Your task to perform on an android device: turn on translation in the chrome app Image 0: 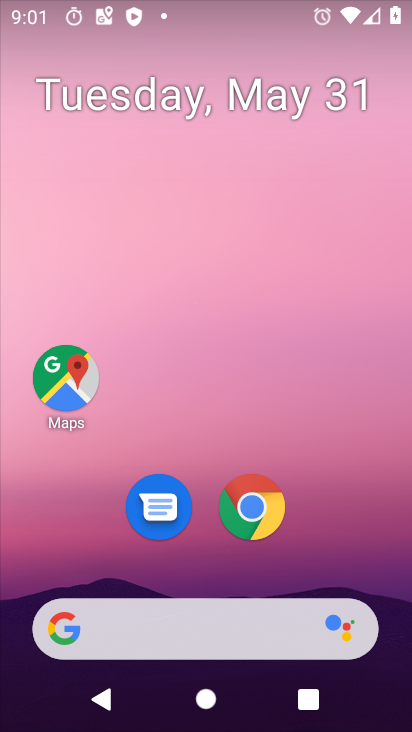
Step 0: click (261, 507)
Your task to perform on an android device: turn on translation in the chrome app Image 1: 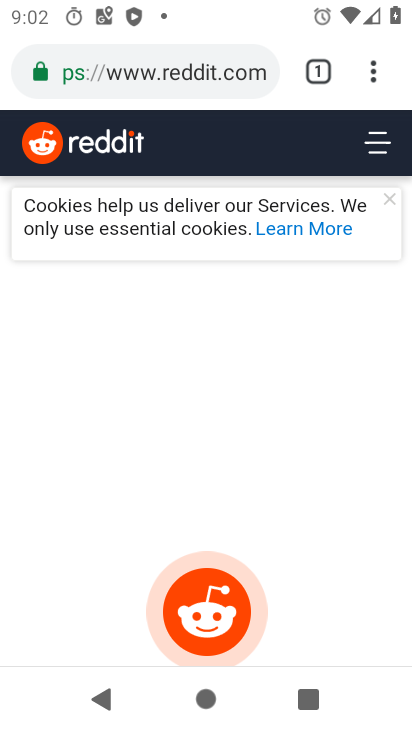
Step 1: click (372, 71)
Your task to perform on an android device: turn on translation in the chrome app Image 2: 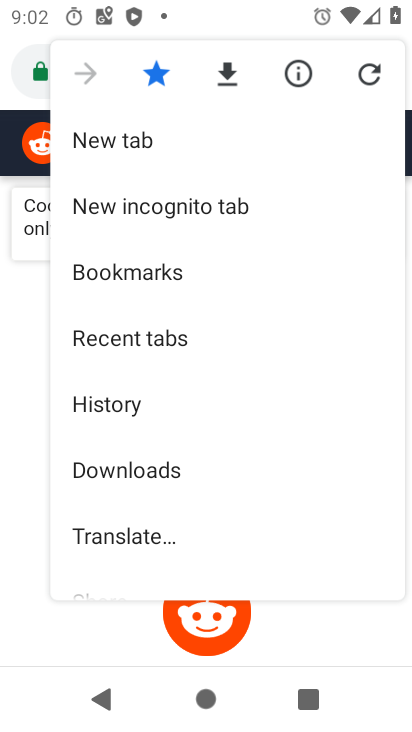
Step 2: drag from (216, 467) to (209, 154)
Your task to perform on an android device: turn on translation in the chrome app Image 3: 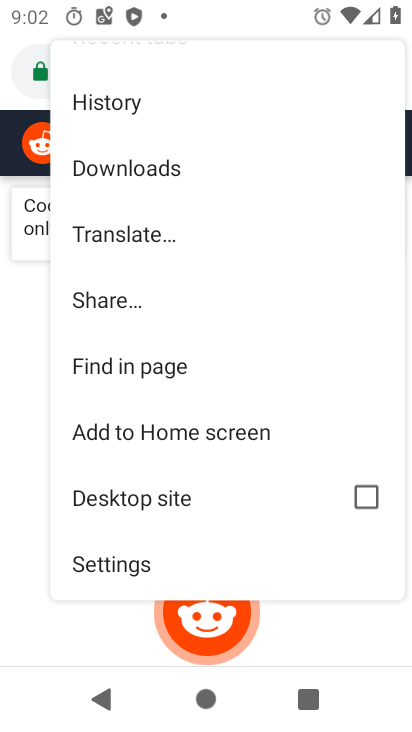
Step 3: drag from (232, 508) to (210, 220)
Your task to perform on an android device: turn on translation in the chrome app Image 4: 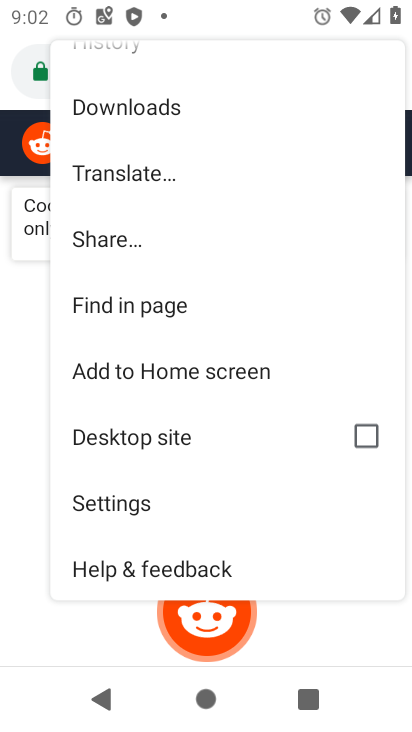
Step 4: click (115, 510)
Your task to perform on an android device: turn on translation in the chrome app Image 5: 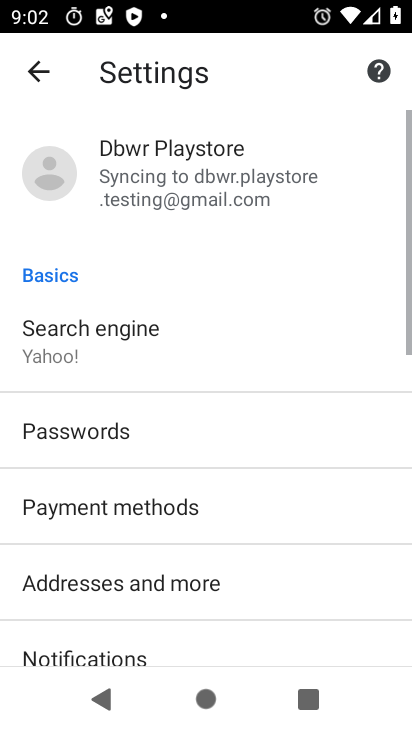
Step 5: drag from (170, 566) to (160, 143)
Your task to perform on an android device: turn on translation in the chrome app Image 6: 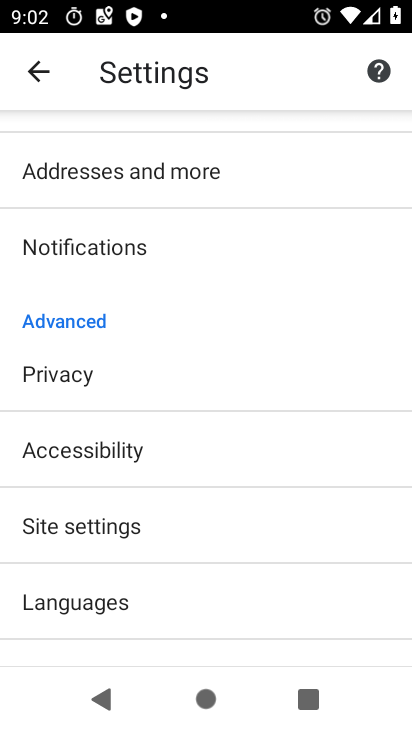
Step 6: click (105, 602)
Your task to perform on an android device: turn on translation in the chrome app Image 7: 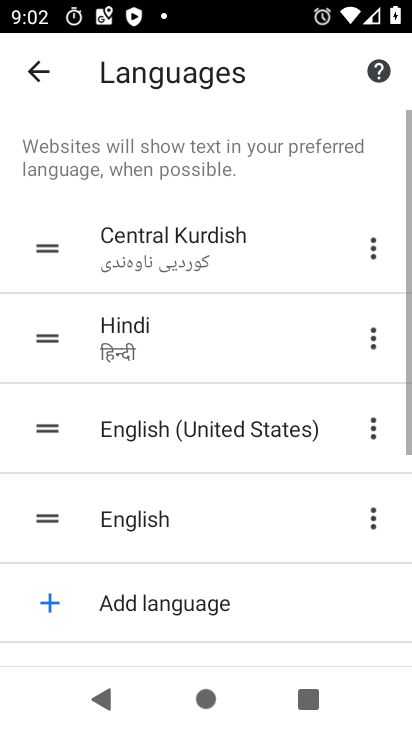
Step 7: task complete